Your task to perform on an android device: open app "Google Maps" (install if not already installed) Image 0: 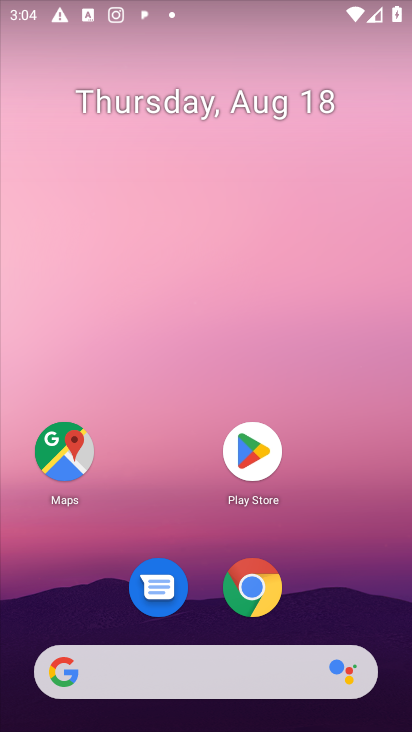
Step 0: press home button
Your task to perform on an android device: open app "Google Maps" (install if not already installed) Image 1: 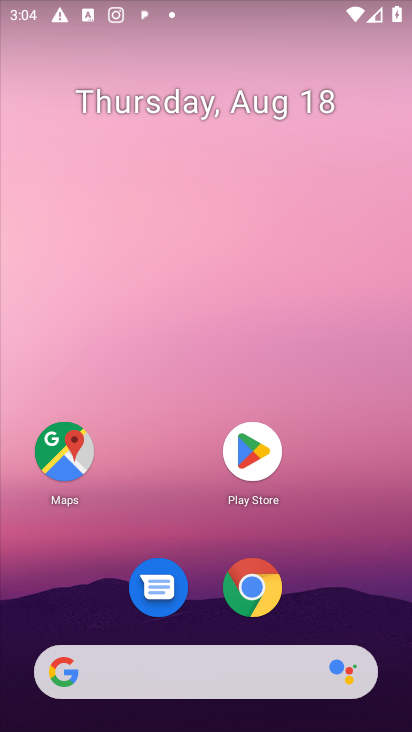
Step 1: click (256, 453)
Your task to perform on an android device: open app "Google Maps" (install if not already installed) Image 2: 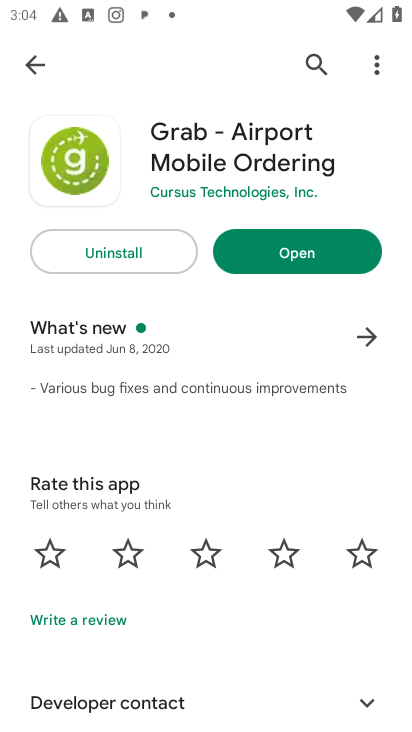
Step 2: click (314, 60)
Your task to perform on an android device: open app "Google Maps" (install if not already installed) Image 3: 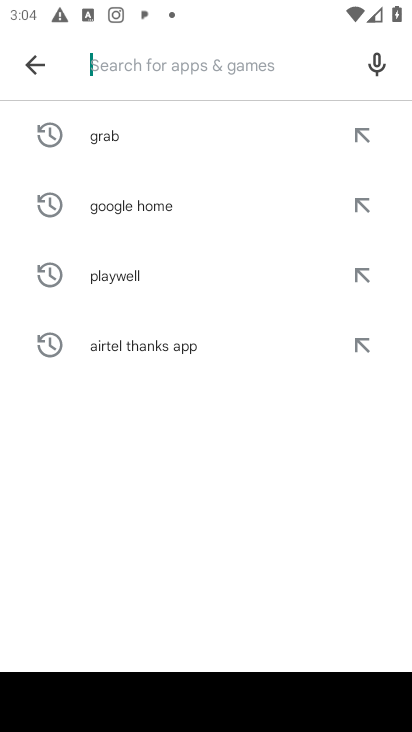
Step 3: type "Google Maps"
Your task to perform on an android device: open app "Google Maps" (install if not already installed) Image 4: 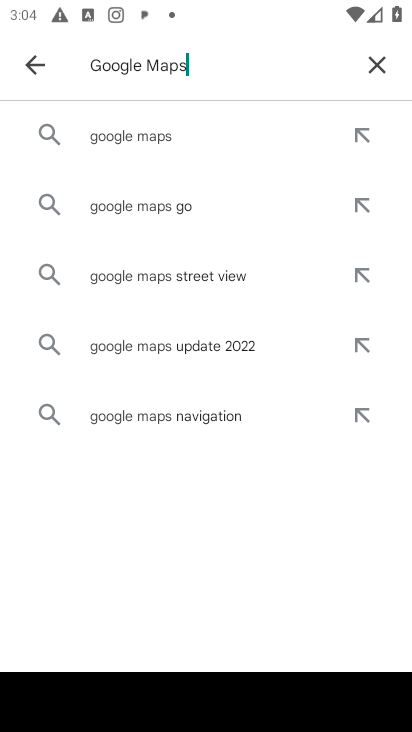
Step 4: click (122, 134)
Your task to perform on an android device: open app "Google Maps" (install if not already installed) Image 5: 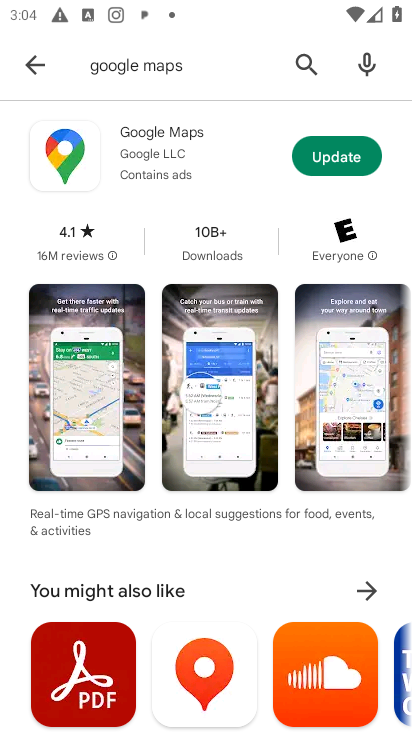
Step 5: click (122, 136)
Your task to perform on an android device: open app "Google Maps" (install if not already installed) Image 6: 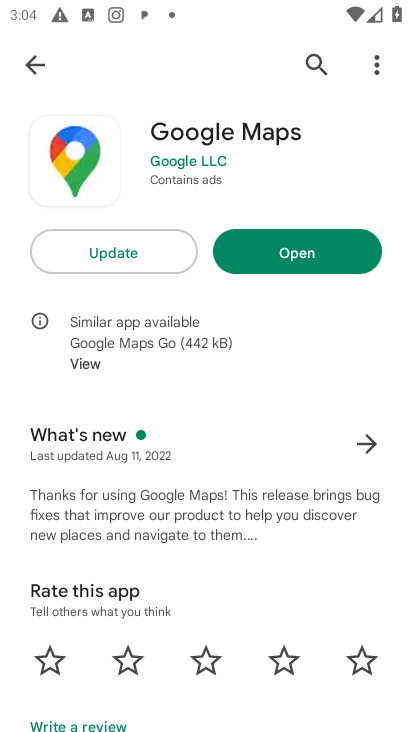
Step 6: click (310, 256)
Your task to perform on an android device: open app "Google Maps" (install if not already installed) Image 7: 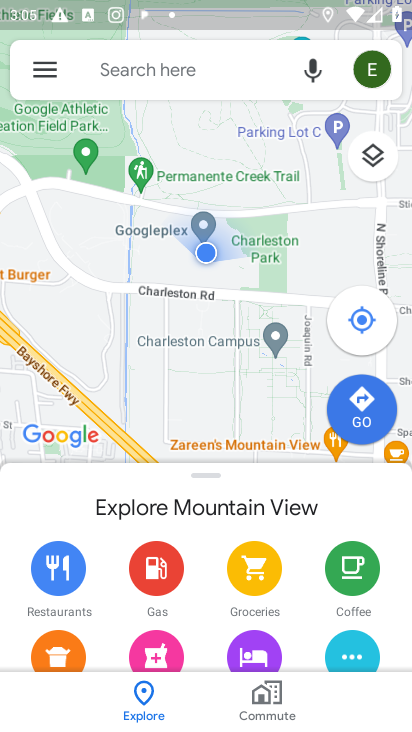
Step 7: task complete